Your task to perform on an android device: Show the shopping cart on costco. Add logitech g910 to the cart on costco, then select checkout. Image 0: 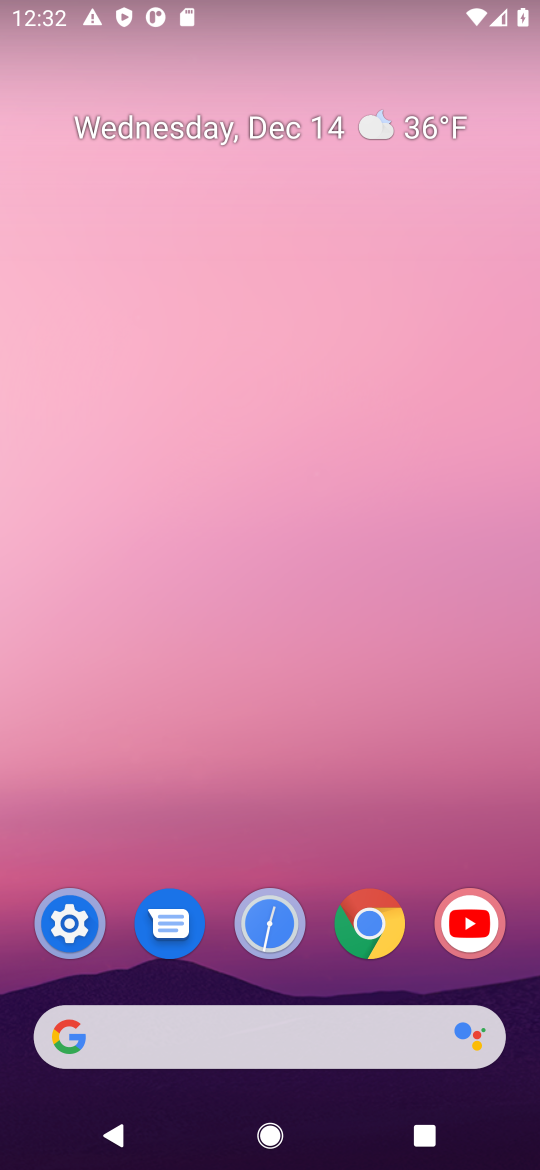
Step 0: click (381, 937)
Your task to perform on an android device: Show the shopping cart on costco. Add logitech g910 to the cart on costco, then select checkout. Image 1: 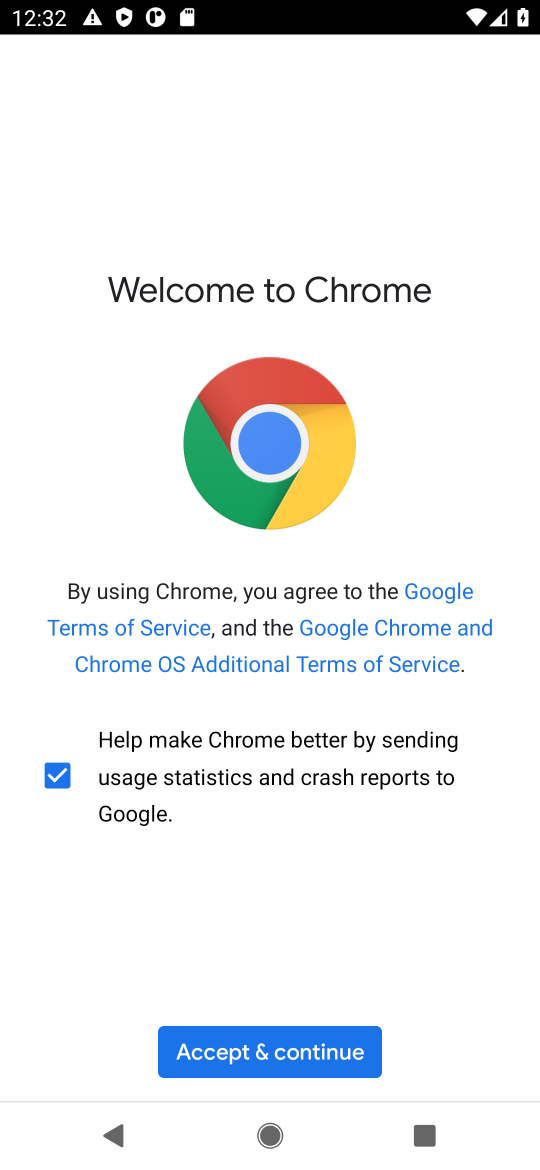
Step 1: click (216, 1044)
Your task to perform on an android device: Show the shopping cart on costco. Add logitech g910 to the cart on costco, then select checkout. Image 2: 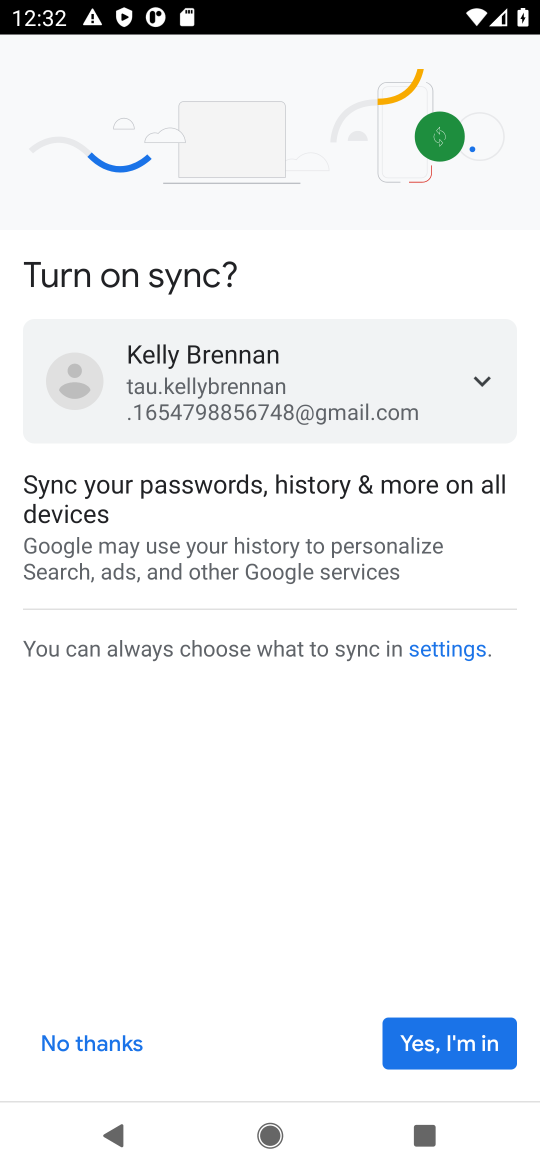
Step 2: click (451, 1052)
Your task to perform on an android device: Show the shopping cart on costco. Add logitech g910 to the cart on costco, then select checkout. Image 3: 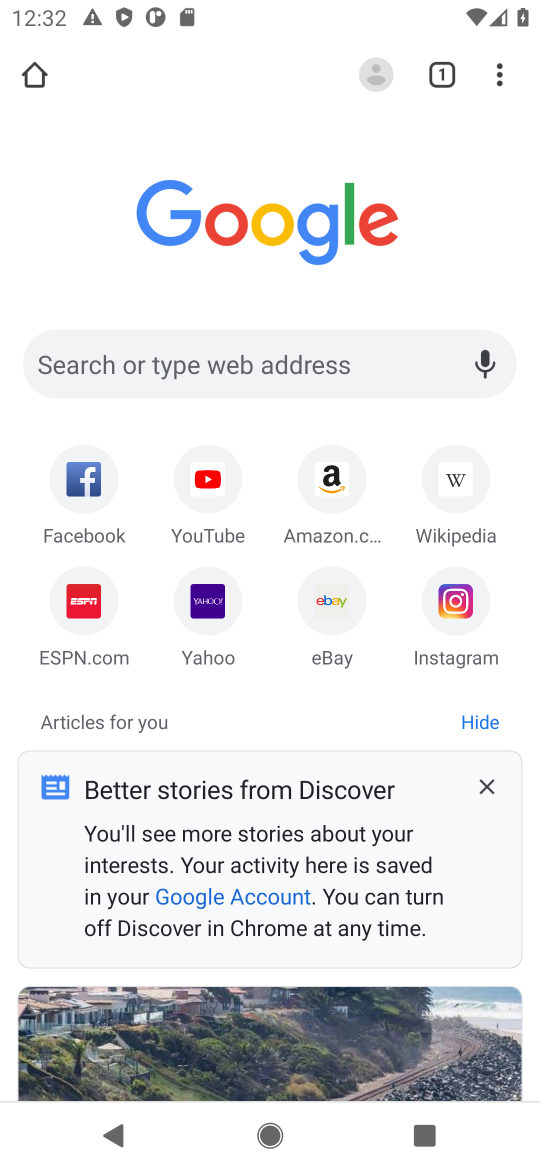
Step 3: click (339, 389)
Your task to perform on an android device: Show the shopping cart on costco. Add logitech g910 to the cart on costco, then select checkout. Image 4: 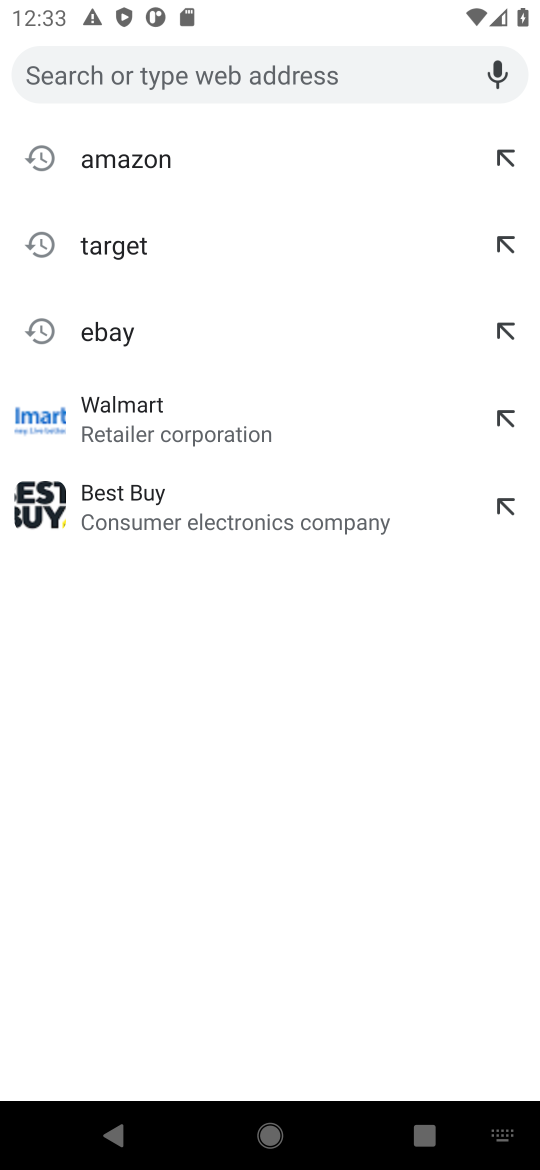
Step 4: type "costco"
Your task to perform on an android device: Show the shopping cart on costco. Add logitech g910 to the cart on costco, then select checkout. Image 5: 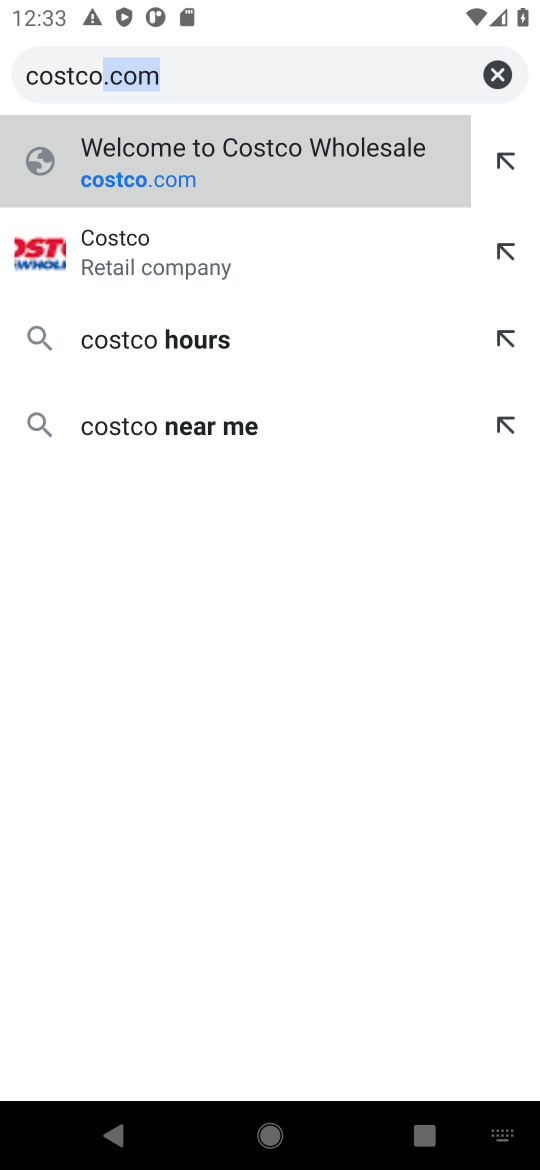
Step 5: click (128, 198)
Your task to perform on an android device: Show the shopping cart on costco. Add logitech g910 to the cart on costco, then select checkout. Image 6: 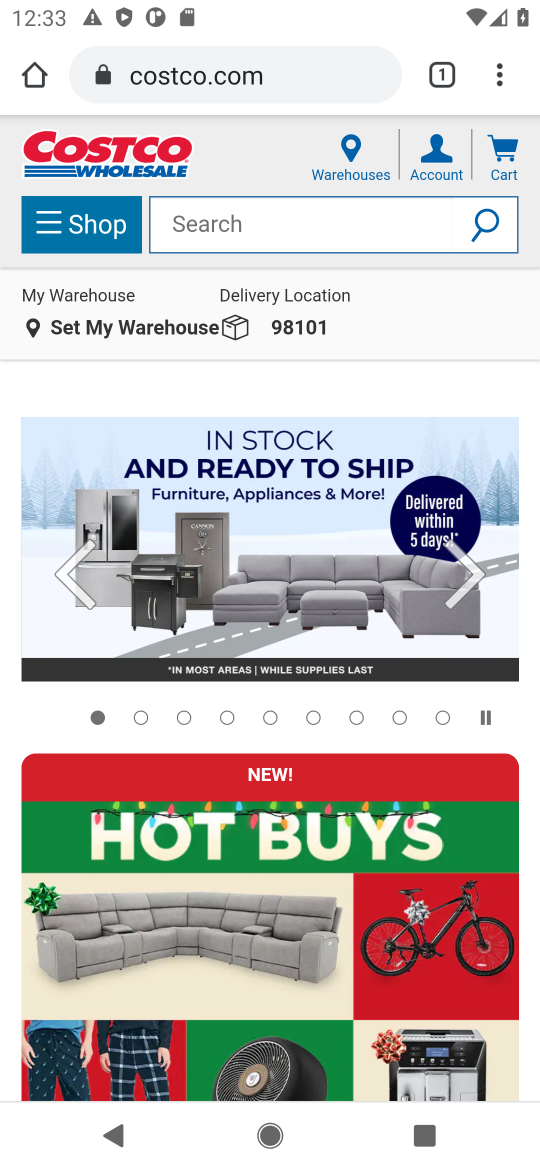
Step 6: click (216, 213)
Your task to perform on an android device: Show the shopping cart on costco. Add logitech g910 to the cart on costco, then select checkout. Image 7: 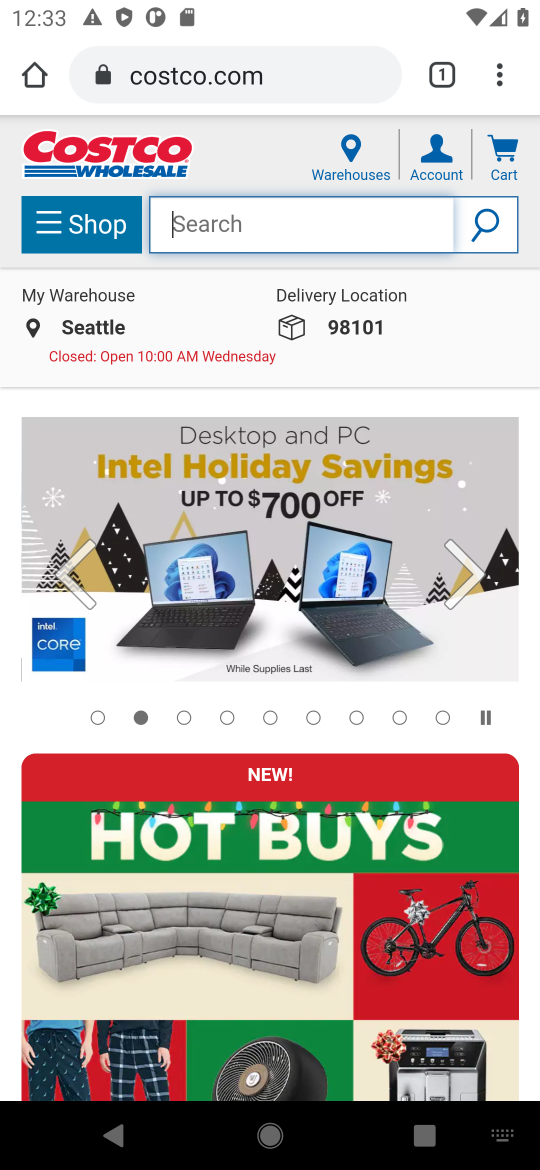
Step 7: type "logitech g910"
Your task to perform on an android device: Show the shopping cart on costco. Add logitech g910 to the cart on costco, then select checkout. Image 8: 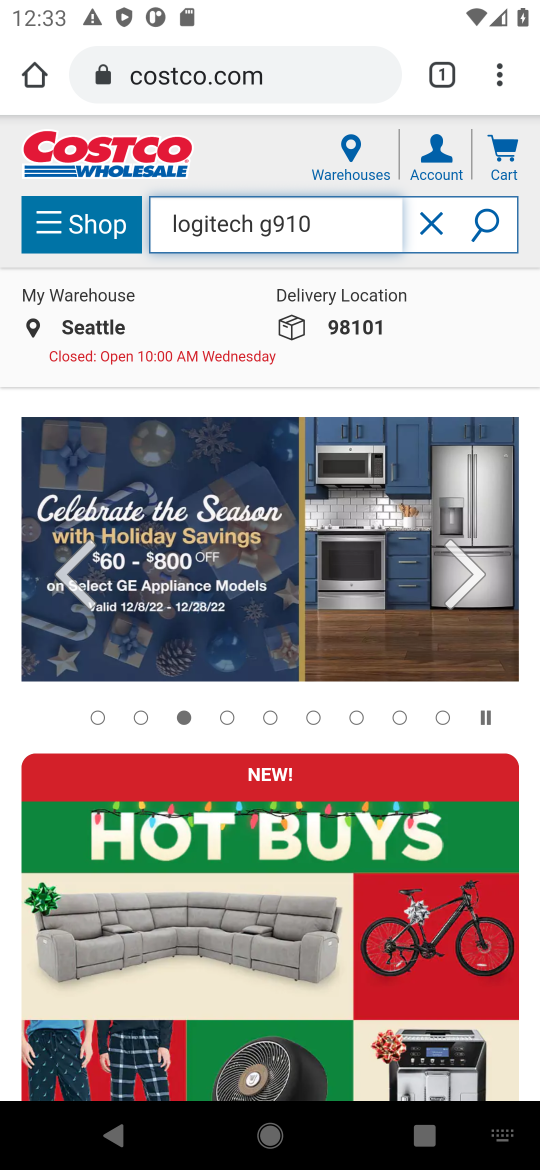
Step 8: click (472, 224)
Your task to perform on an android device: Show the shopping cart on costco. Add logitech g910 to the cart on costco, then select checkout. Image 9: 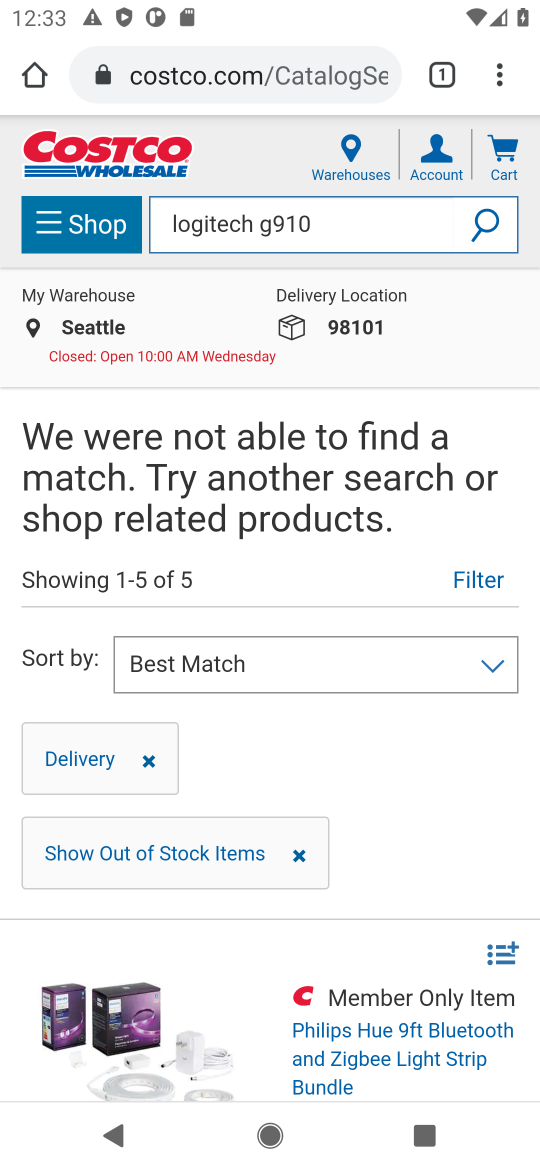
Step 9: task complete